Your task to perform on an android device: Open Maps and search for coffee Image 0: 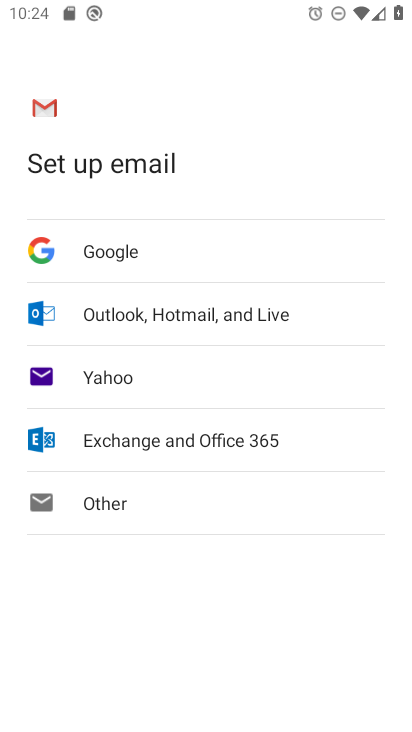
Step 0: press home button
Your task to perform on an android device: Open Maps and search for coffee Image 1: 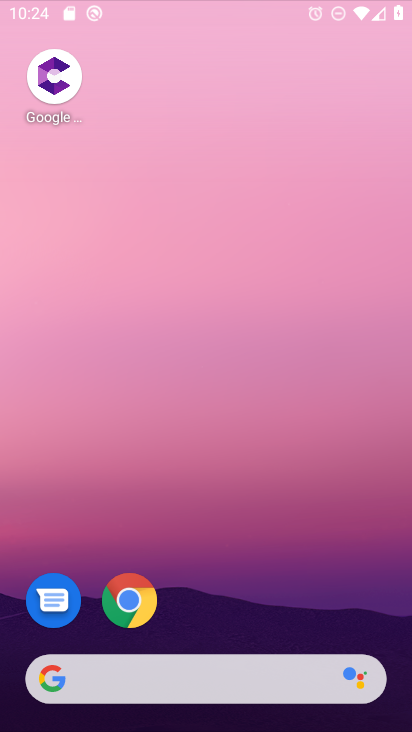
Step 1: drag from (394, 648) to (263, 40)
Your task to perform on an android device: Open Maps and search for coffee Image 2: 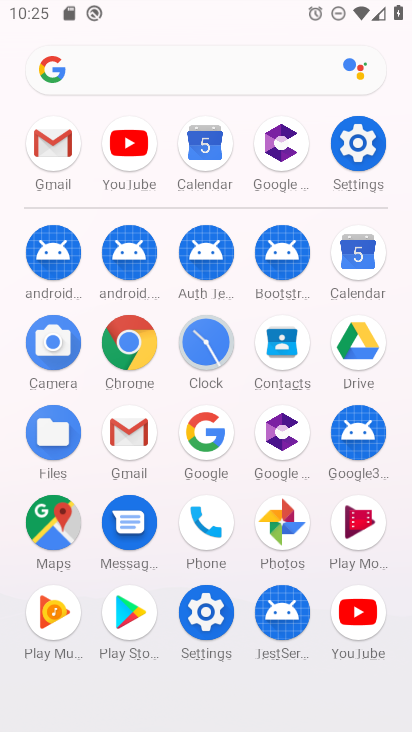
Step 2: click (59, 527)
Your task to perform on an android device: Open Maps and search for coffee Image 3: 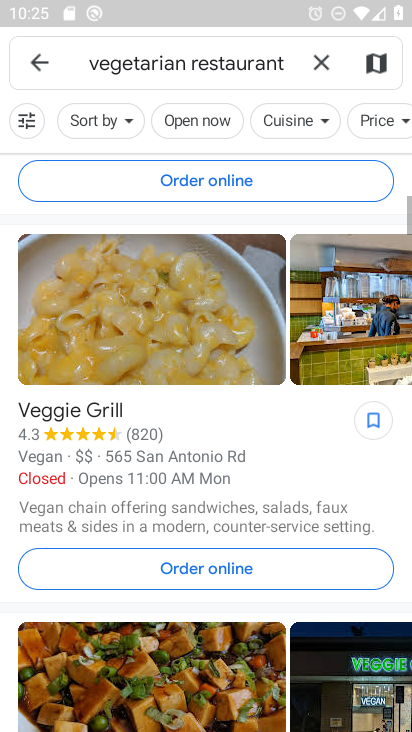
Step 3: click (318, 52)
Your task to perform on an android device: Open Maps and search for coffee Image 4: 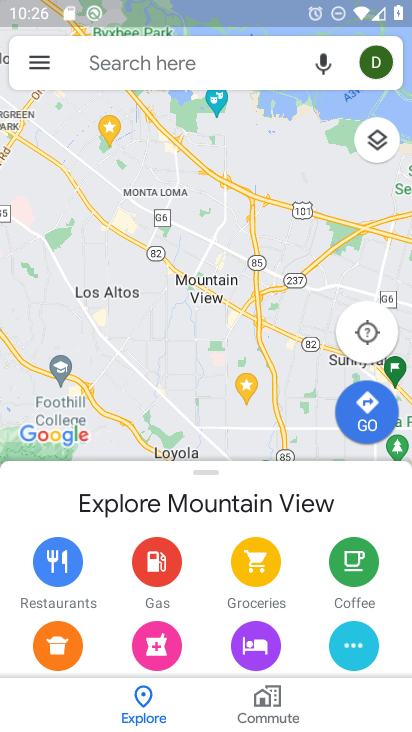
Step 4: click (140, 68)
Your task to perform on an android device: Open Maps and search for coffee Image 5: 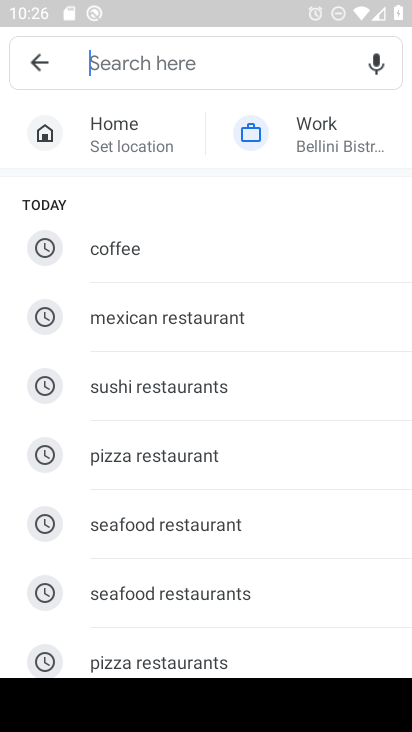
Step 5: click (148, 257)
Your task to perform on an android device: Open Maps and search for coffee Image 6: 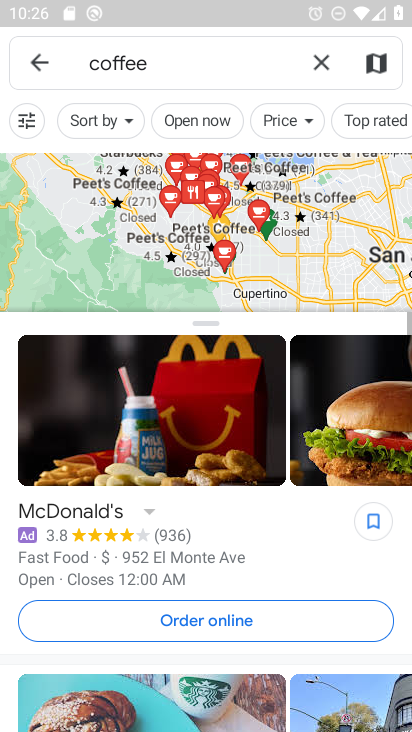
Step 6: task complete